Your task to perform on an android device: change the clock display to digital Image 0: 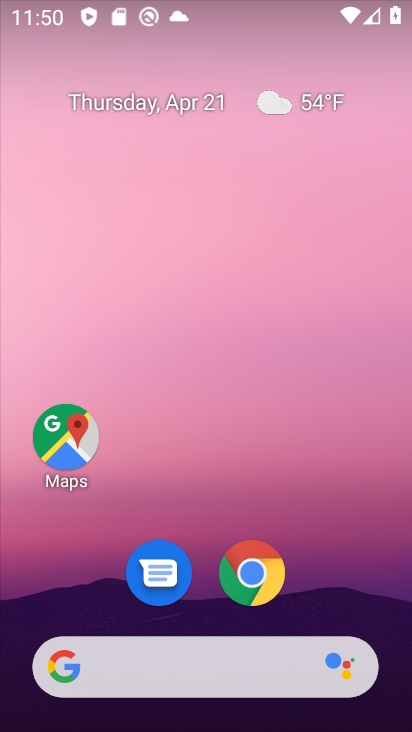
Step 0: drag from (181, 662) to (316, 270)
Your task to perform on an android device: change the clock display to digital Image 1: 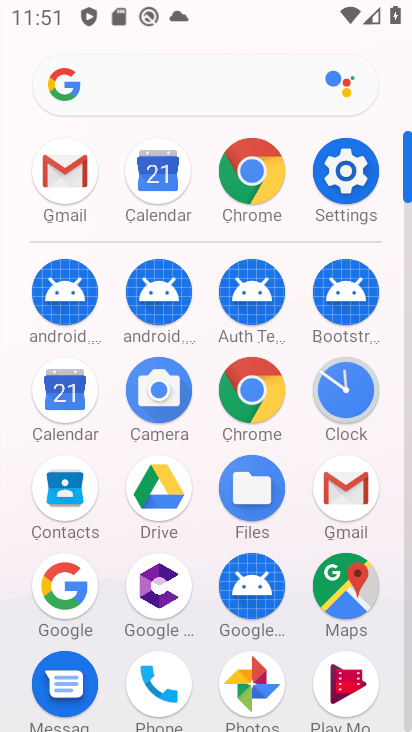
Step 1: click (350, 400)
Your task to perform on an android device: change the clock display to digital Image 2: 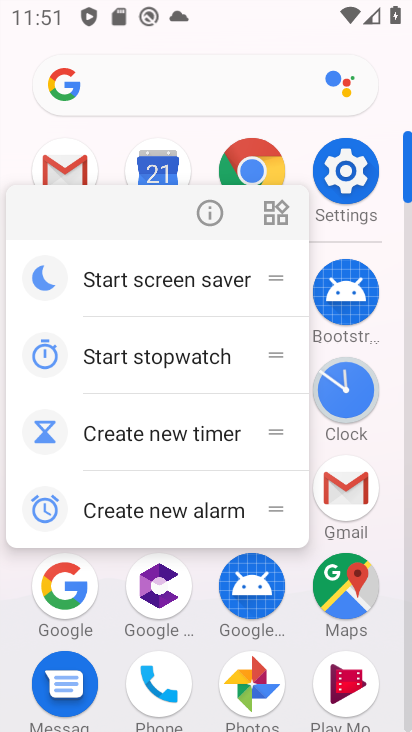
Step 2: click (349, 409)
Your task to perform on an android device: change the clock display to digital Image 3: 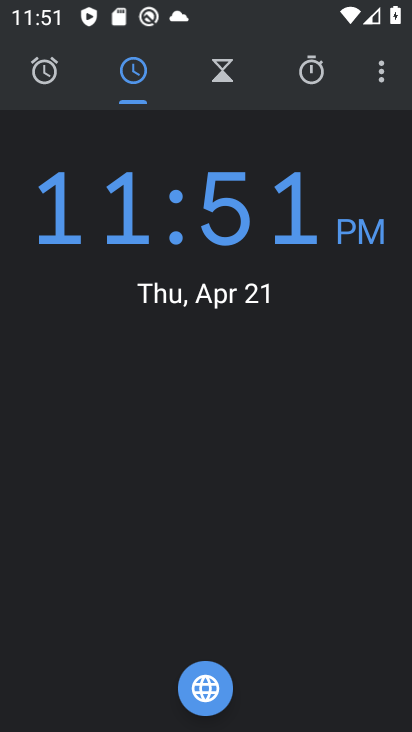
Step 3: click (386, 76)
Your task to perform on an android device: change the clock display to digital Image 4: 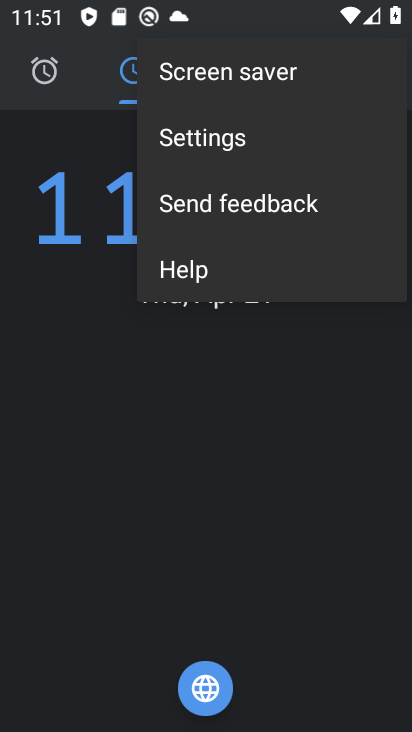
Step 4: click (242, 146)
Your task to perform on an android device: change the clock display to digital Image 5: 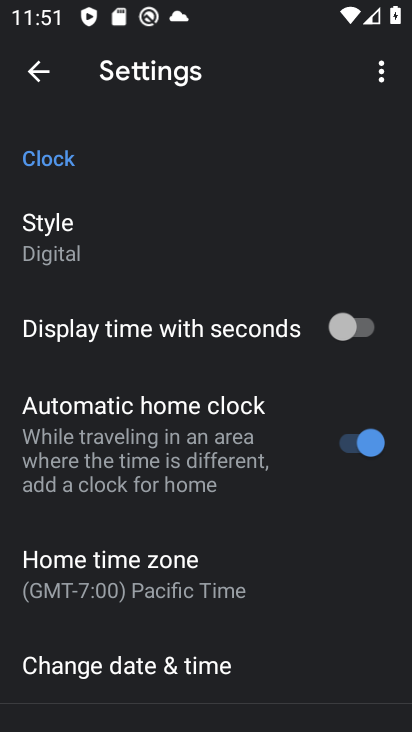
Step 5: task complete